Your task to perform on an android device: Open the Play Movies app and select the watchlist tab. Image 0: 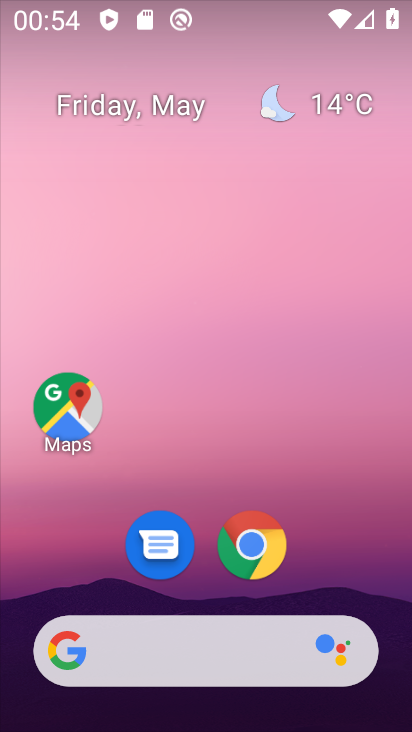
Step 0: drag from (312, 544) to (233, 48)
Your task to perform on an android device: Open the Play Movies app and select the watchlist tab. Image 1: 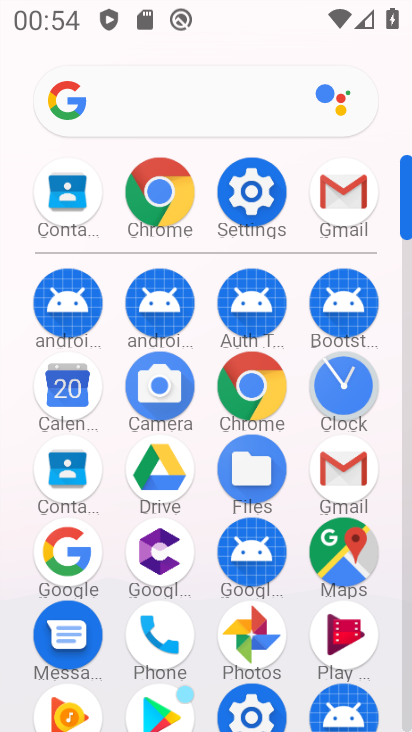
Step 1: drag from (196, 679) to (248, 395)
Your task to perform on an android device: Open the Play Movies app and select the watchlist tab. Image 2: 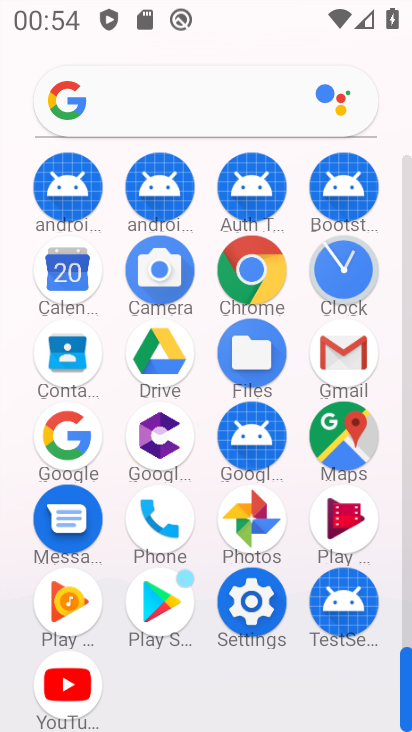
Step 2: drag from (218, 276) to (172, 579)
Your task to perform on an android device: Open the Play Movies app and select the watchlist tab. Image 3: 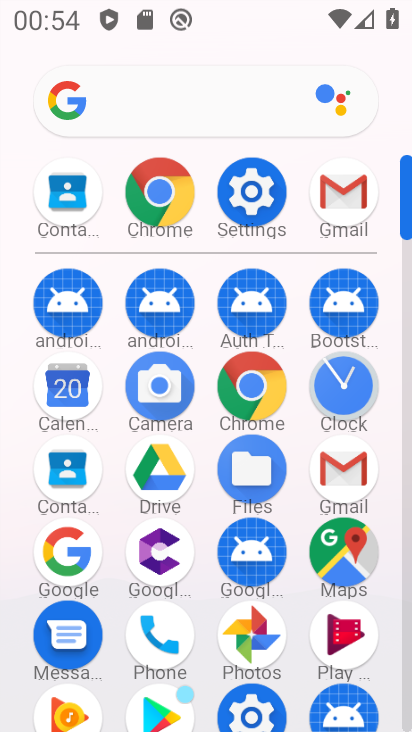
Step 3: click (353, 652)
Your task to perform on an android device: Open the Play Movies app and select the watchlist tab. Image 4: 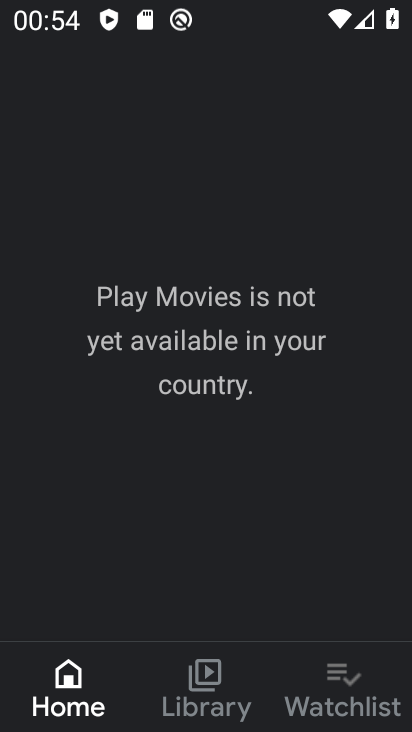
Step 4: click (334, 705)
Your task to perform on an android device: Open the Play Movies app and select the watchlist tab. Image 5: 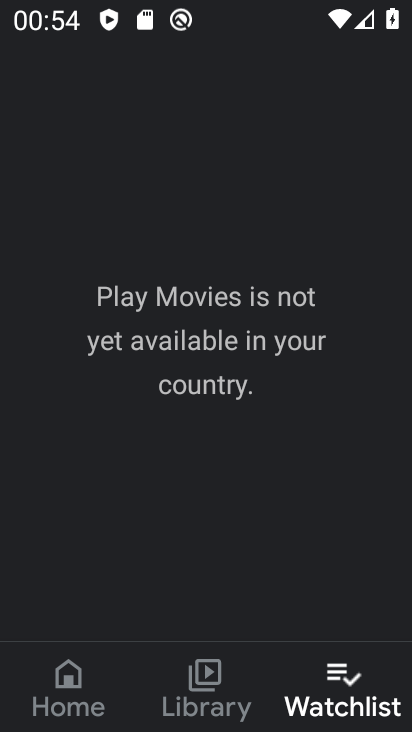
Step 5: task complete